Your task to perform on an android device: Go to calendar. Show me events next week Image 0: 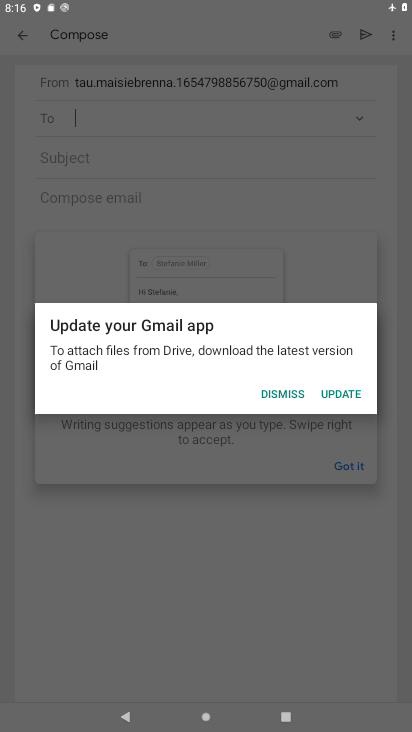
Step 0: click (289, 388)
Your task to perform on an android device: Go to calendar. Show me events next week Image 1: 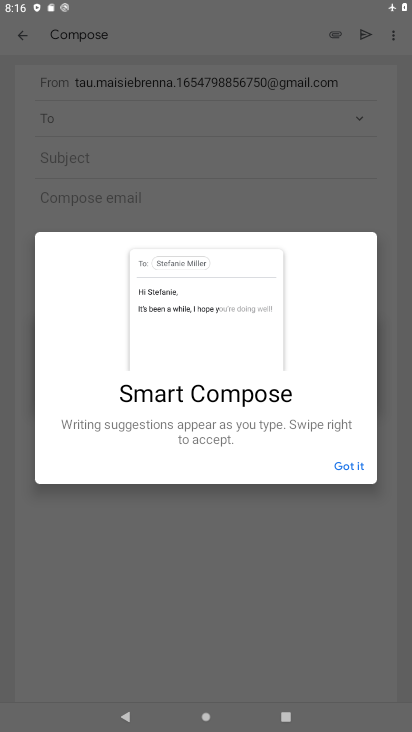
Step 1: click (348, 463)
Your task to perform on an android device: Go to calendar. Show me events next week Image 2: 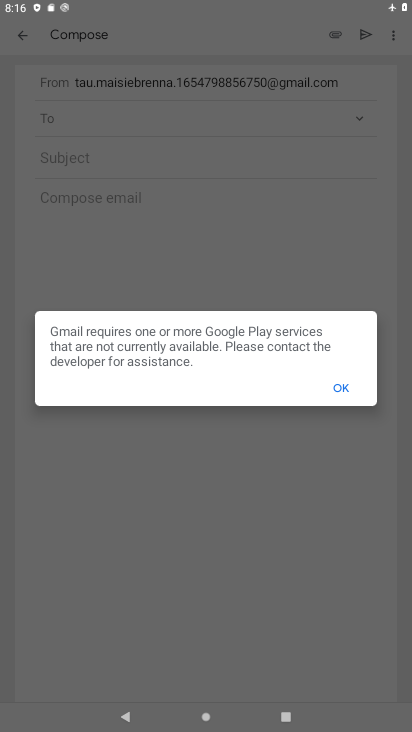
Step 2: click (338, 389)
Your task to perform on an android device: Go to calendar. Show me events next week Image 3: 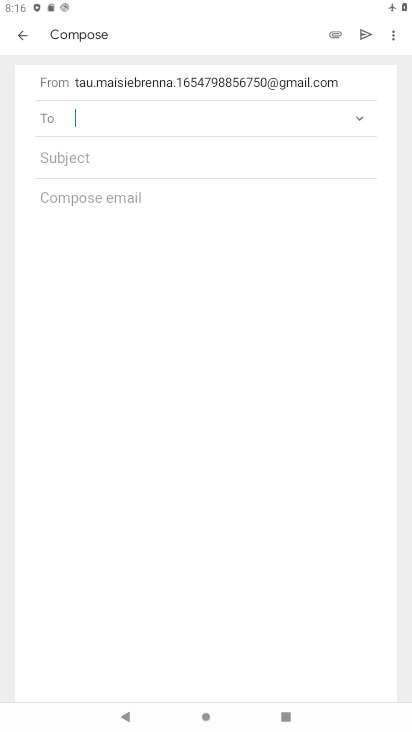
Step 3: press back button
Your task to perform on an android device: Go to calendar. Show me events next week Image 4: 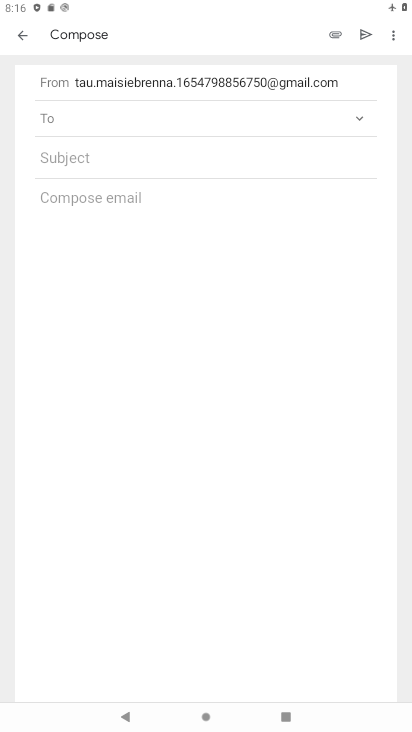
Step 4: press back button
Your task to perform on an android device: Go to calendar. Show me events next week Image 5: 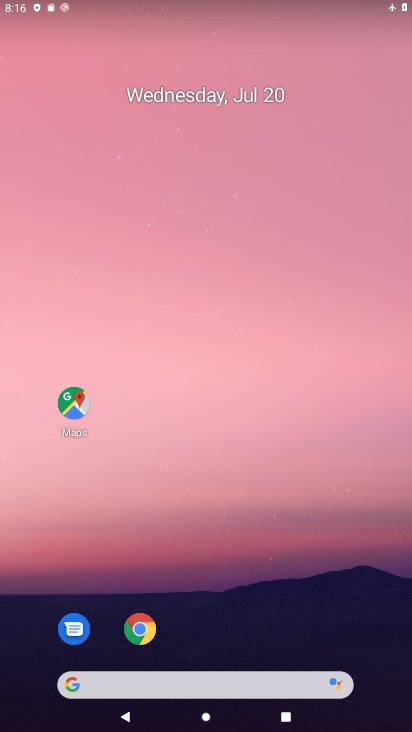
Step 5: drag from (199, 595) to (84, 75)
Your task to perform on an android device: Go to calendar. Show me events next week Image 6: 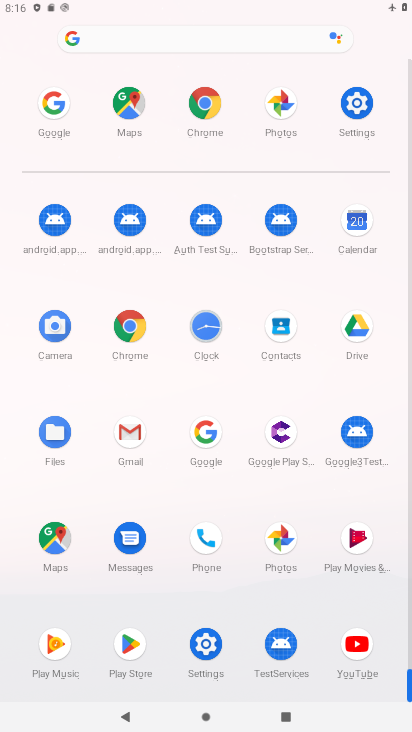
Step 6: click (363, 212)
Your task to perform on an android device: Go to calendar. Show me events next week Image 7: 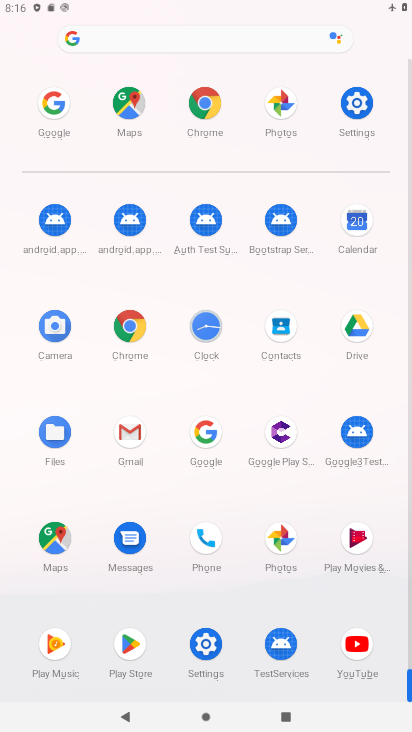
Step 7: click (362, 216)
Your task to perform on an android device: Go to calendar. Show me events next week Image 8: 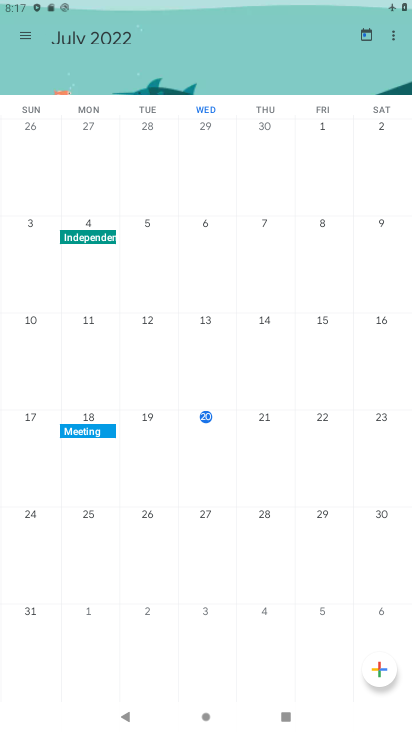
Step 8: click (82, 514)
Your task to perform on an android device: Go to calendar. Show me events next week Image 9: 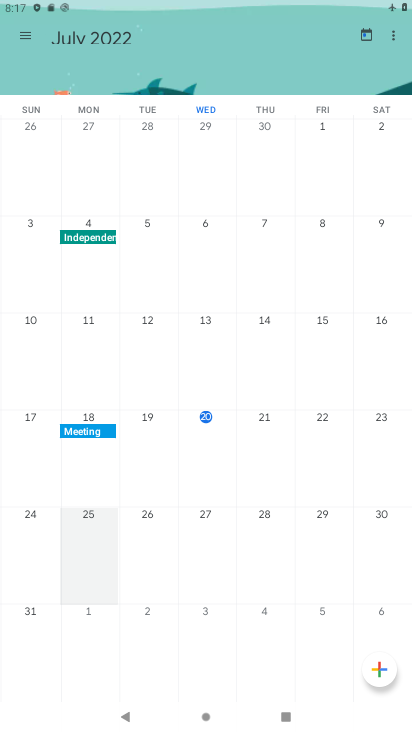
Step 9: click (85, 510)
Your task to perform on an android device: Go to calendar. Show me events next week Image 10: 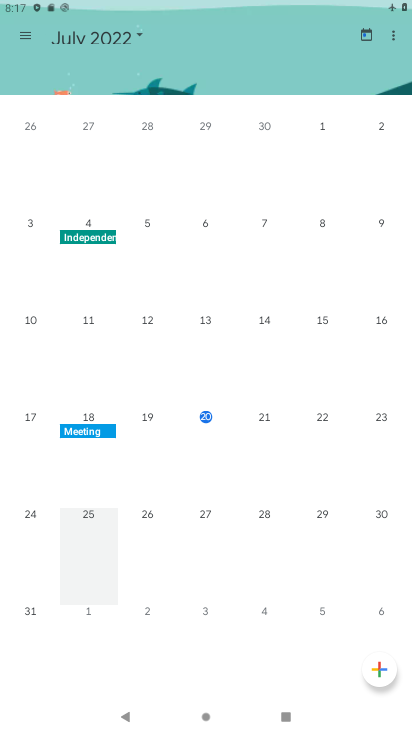
Step 10: click (93, 511)
Your task to perform on an android device: Go to calendar. Show me events next week Image 11: 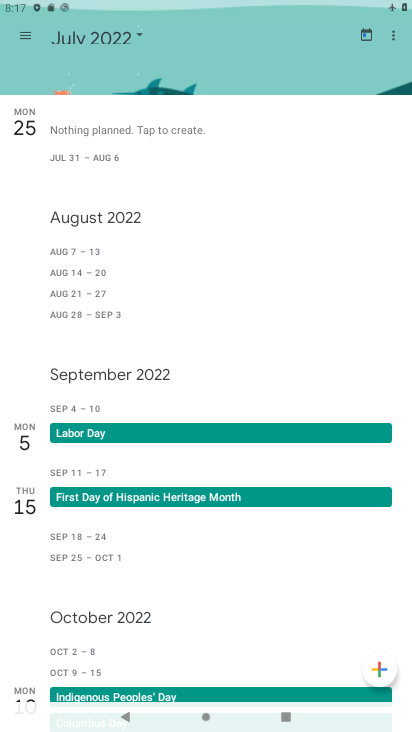
Step 11: click (94, 512)
Your task to perform on an android device: Go to calendar. Show me events next week Image 12: 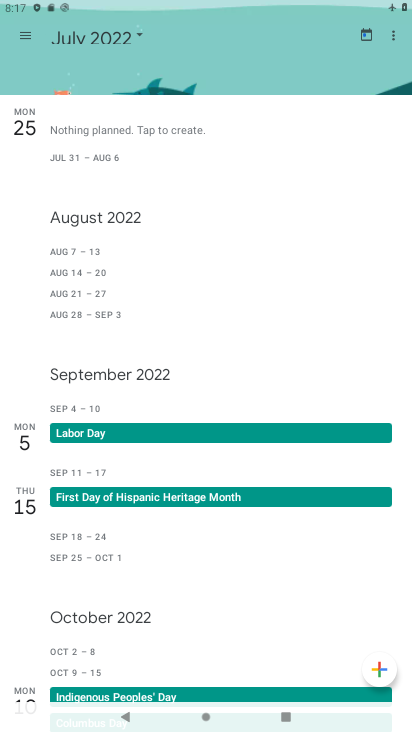
Step 12: task complete